Your task to perform on an android device: turn on bluetooth scan Image 0: 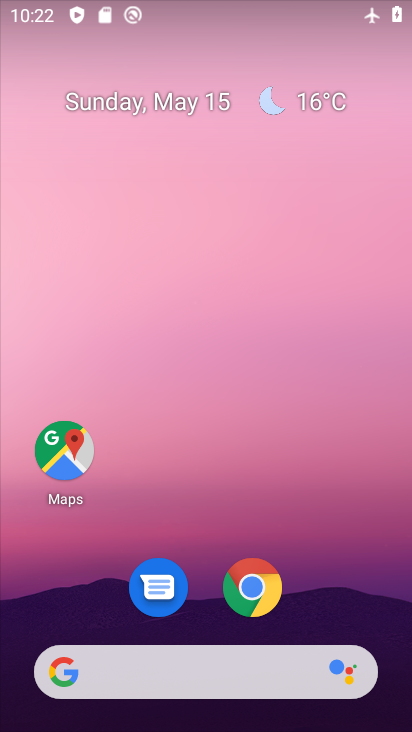
Step 0: drag from (352, 585) to (290, 32)
Your task to perform on an android device: turn on bluetooth scan Image 1: 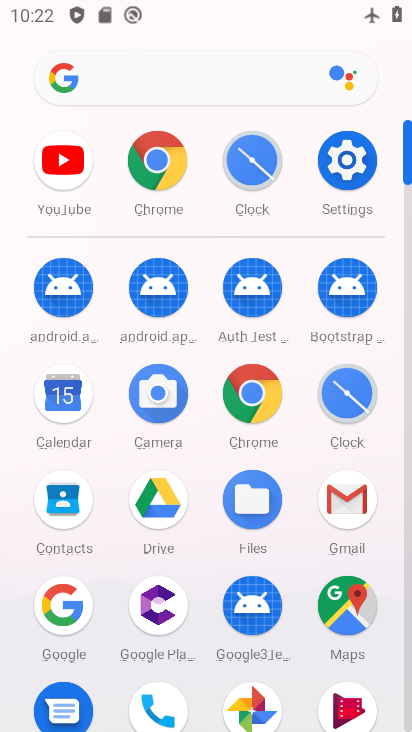
Step 1: drag from (10, 487) to (27, 292)
Your task to perform on an android device: turn on bluetooth scan Image 2: 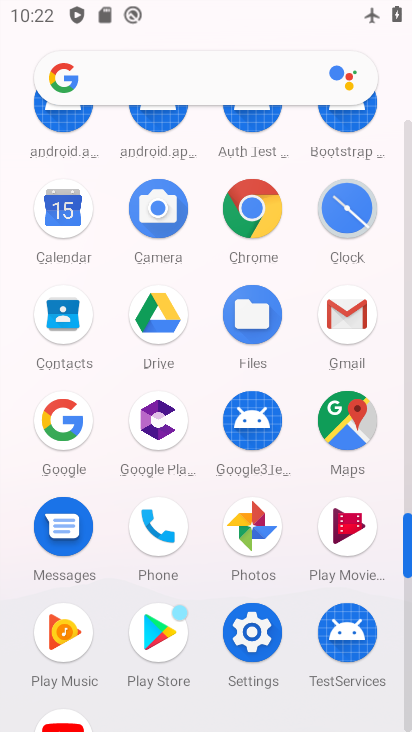
Step 2: click (251, 627)
Your task to perform on an android device: turn on bluetooth scan Image 3: 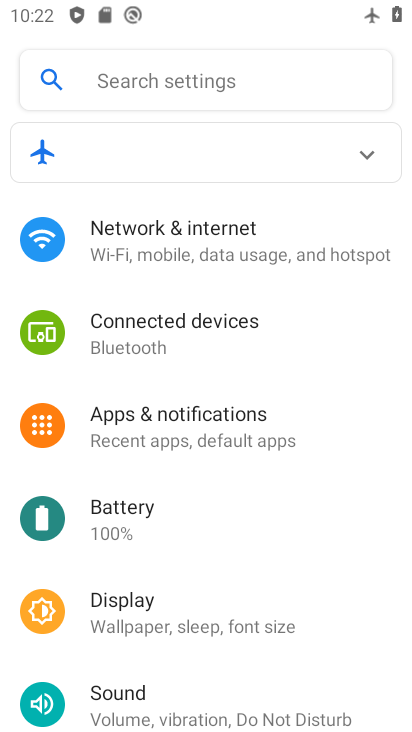
Step 3: drag from (266, 556) to (295, 188)
Your task to perform on an android device: turn on bluetooth scan Image 4: 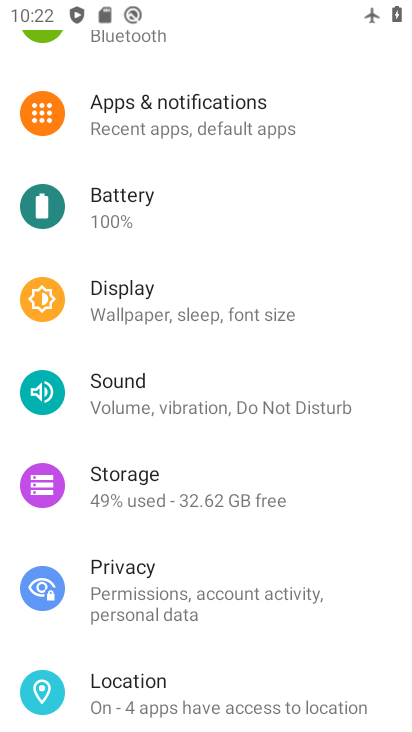
Step 4: click (153, 679)
Your task to perform on an android device: turn on bluetooth scan Image 5: 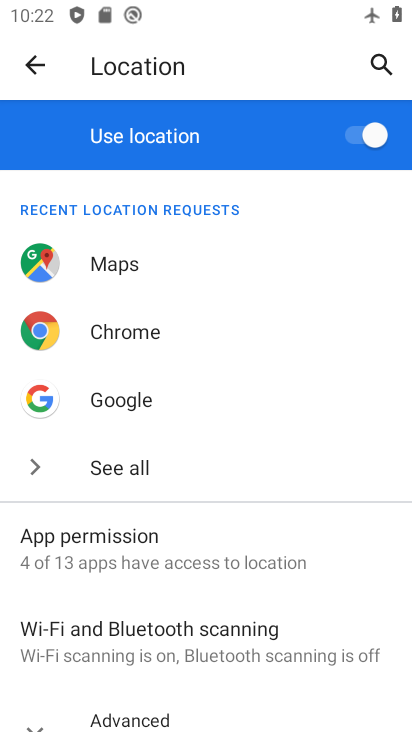
Step 5: drag from (199, 633) to (243, 277)
Your task to perform on an android device: turn on bluetooth scan Image 6: 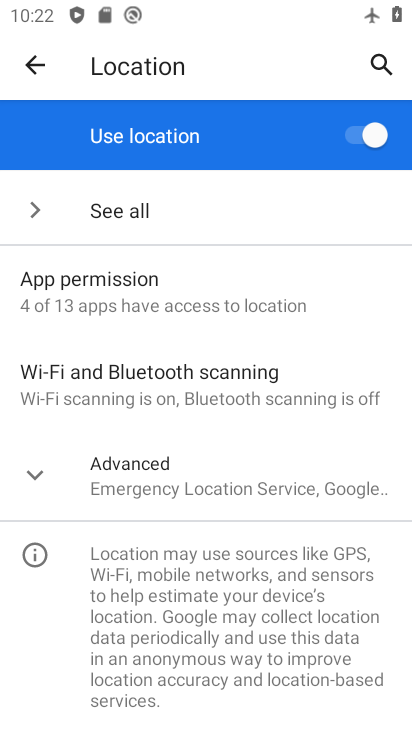
Step 6: click (55, 462)
Your task to perform on an android device: turn on bluetooth scan Image 7: 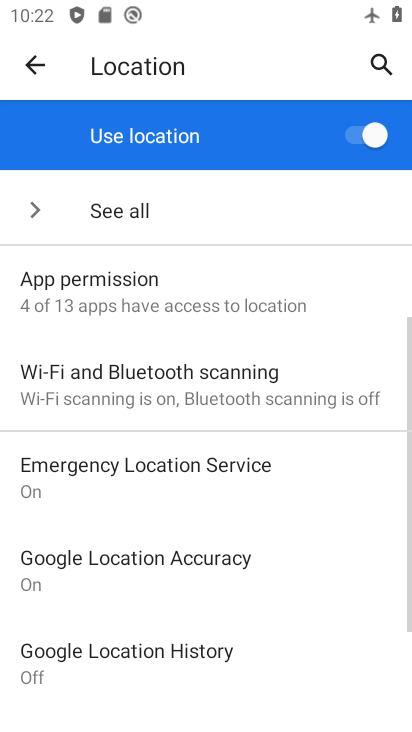
Step 7: drag from (262, 616) to (246, 239)
Your task to perform on an android device: turn on bluetooth scan Image 8: 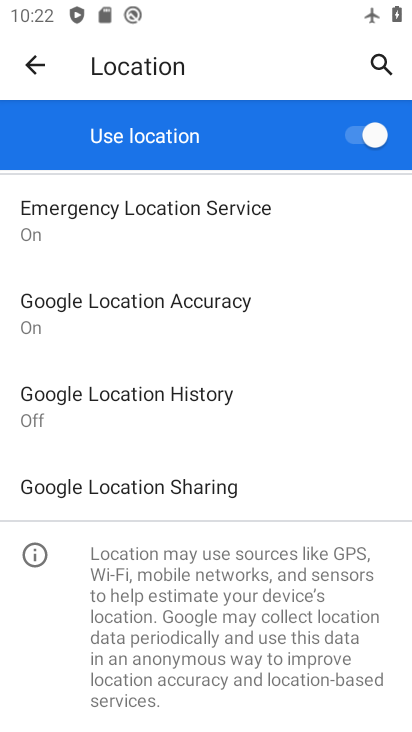
Step 8: drag from (257, 291) to (269, 682)
Your task to perform on an android device: turn on bluetooth scan Image 9: 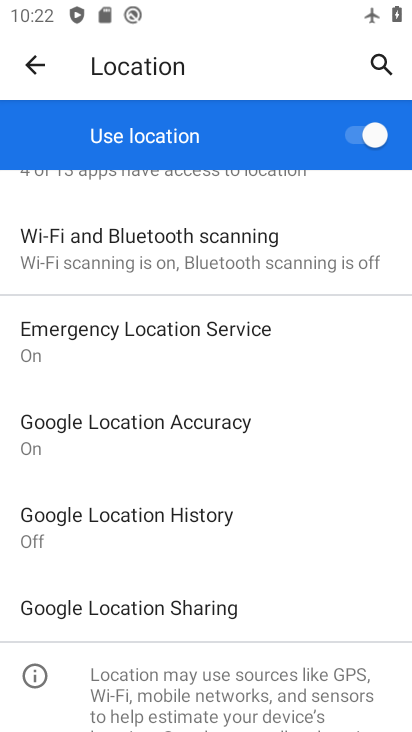
Step 9: click (254, 237)
Your task to perform on an android device: turn on bluetooth scan Image 10: 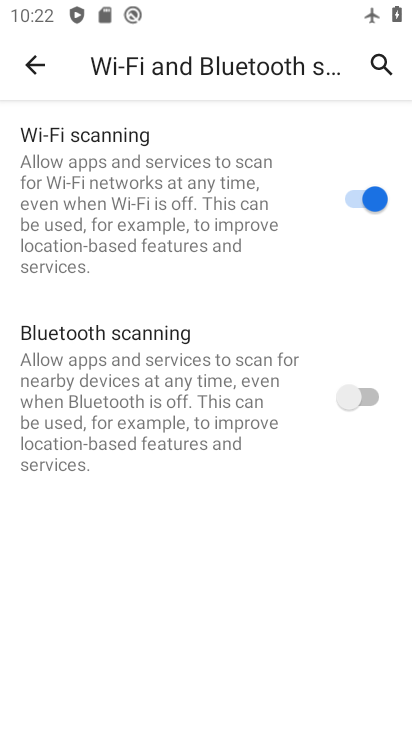
Step 10: click (356, 389)
Your task to perform on an android device: turn on bluetooth scan Image 11: 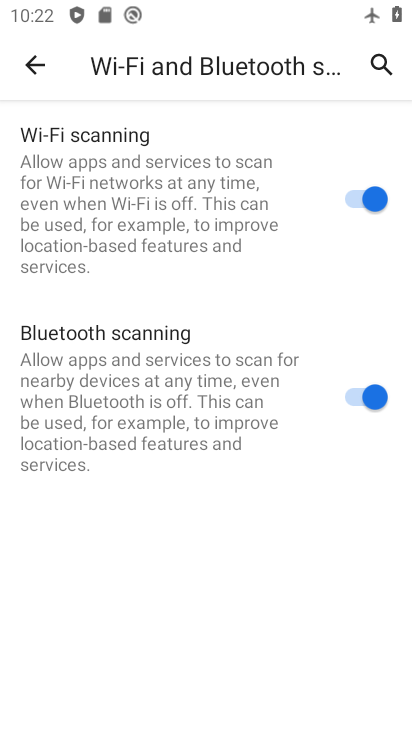
Step 11: task complete